Your task to perform on an android device: Open Reddit.com Image 0: 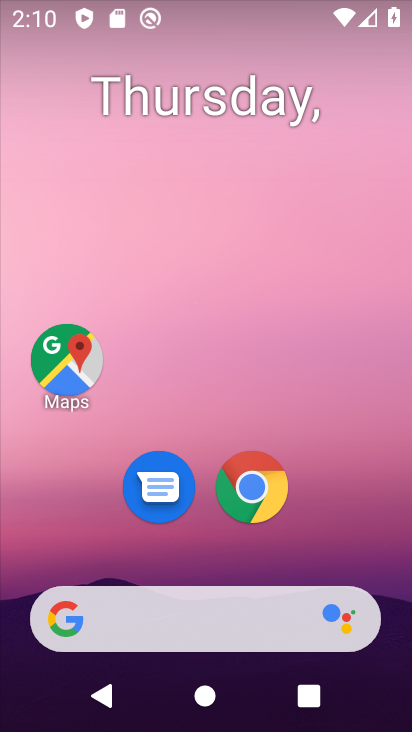
Step 0: click (242, 605)
Your task to perform on an android device: Open Reddit.com Image 1: 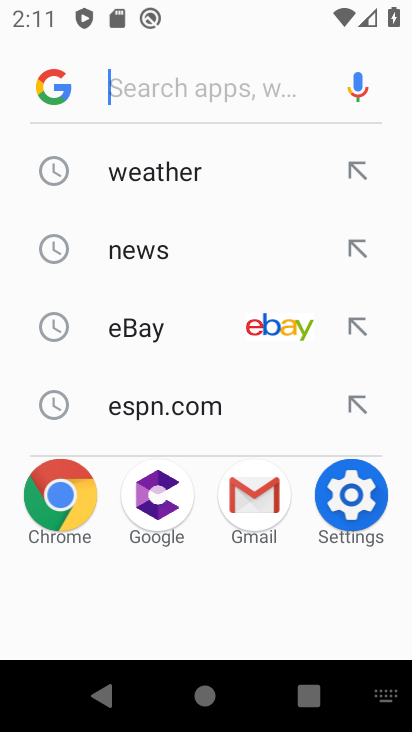
Step 1: type "Reddit.com"
Your task to perform on an android device: Open Reddit.com Image 2: 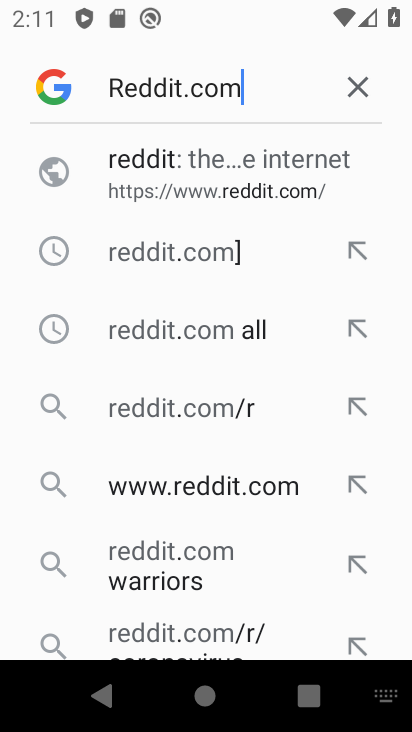
Step 2: click (273, 469)
Your task to perform on an android device: Open Reddit.com Image 3: 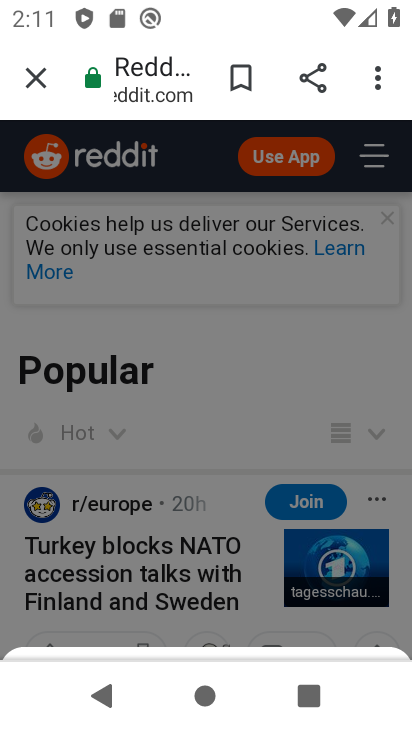
Step 3: task complete